Your task to perform on an android device: Open the web browser Image 0: 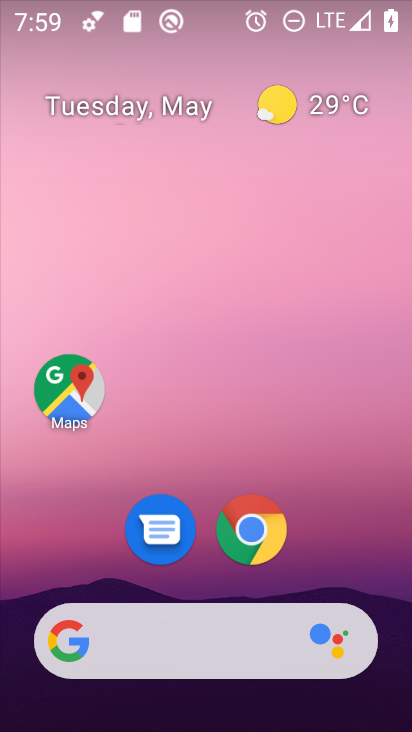
Step 0: drag from (387, 635) to (276, 80)
Your task to perform on an android device: Open the web browser Image 1: 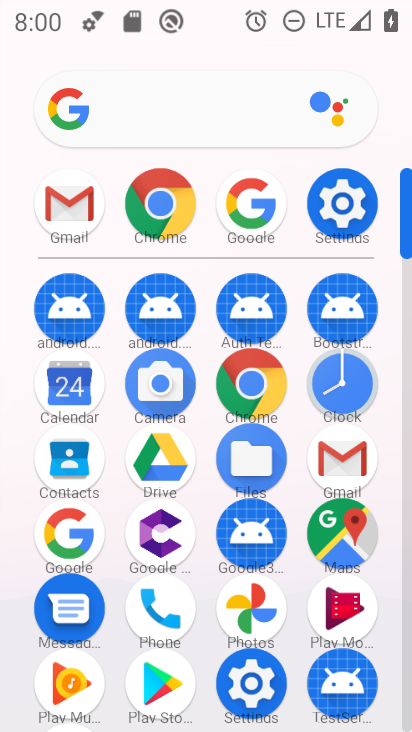
Step 1: click (245, 367)
Your task to perform on an android device: Open the web browser Image 2: 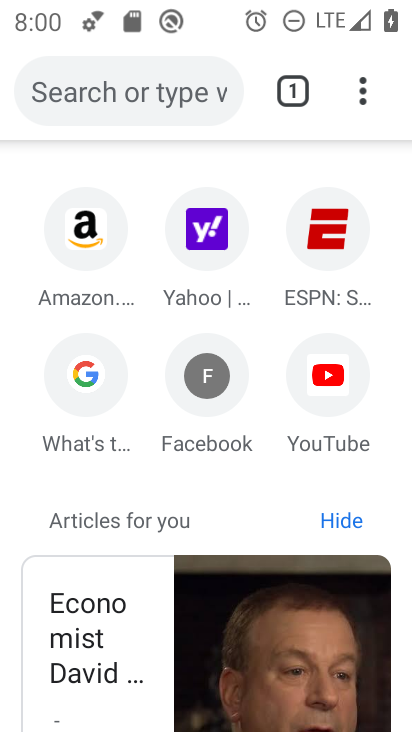
Step 2: task complete